Your task to perform on an android device: open a bookmark in the chrome app Image 0: 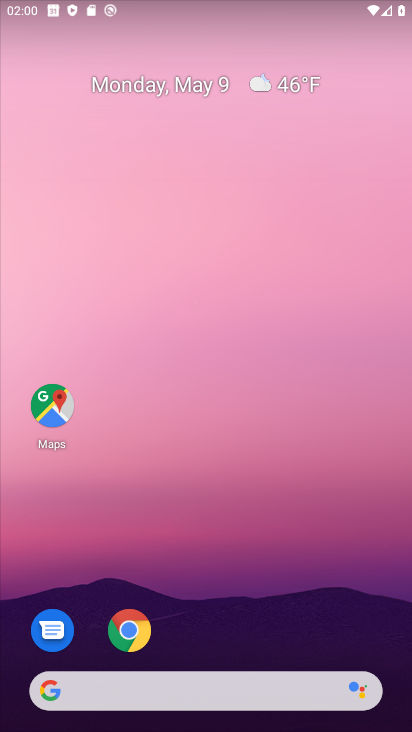
Step 0: click (125, 630)
Your task to perform on an android device: open a bookmark in the chrome app Image 1: 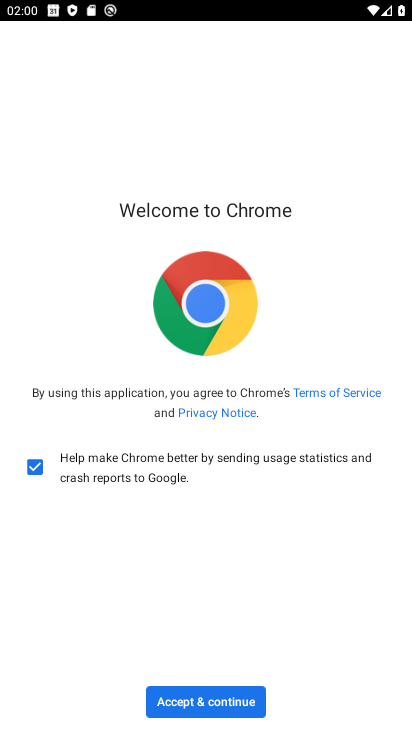
Step 1: click (200, 704)
Your task to perform on an android device: open a bookmark in the chrome app Image 2: 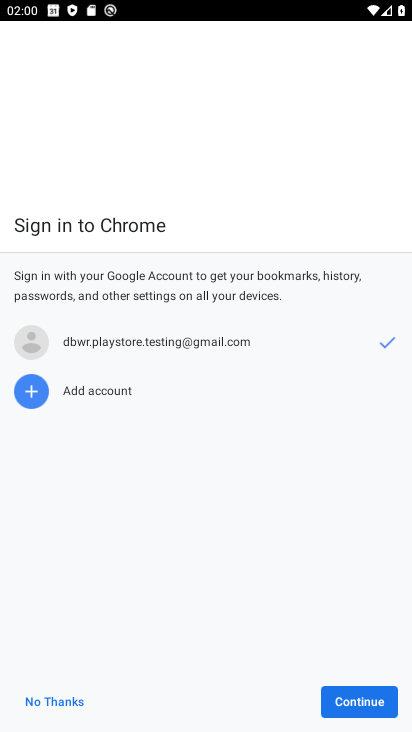
Step 2: click (356, 699)
Your task to perform on an android device: open a bookmark in the chrome app Image 3: 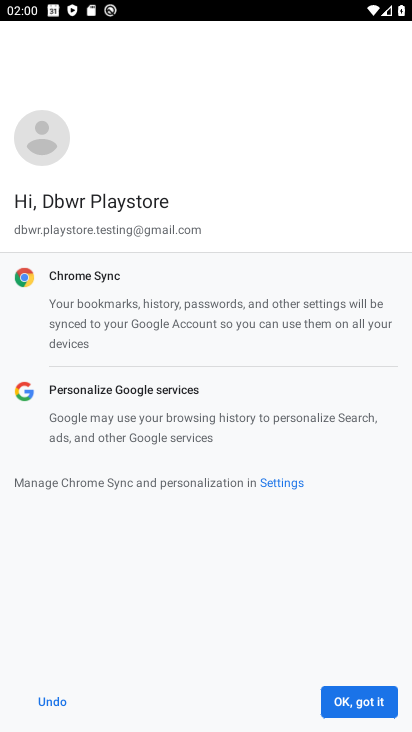
Step 3: click (356, 699)
Your task to perform on an android device: open a bookmark in the chrome app Image 4: 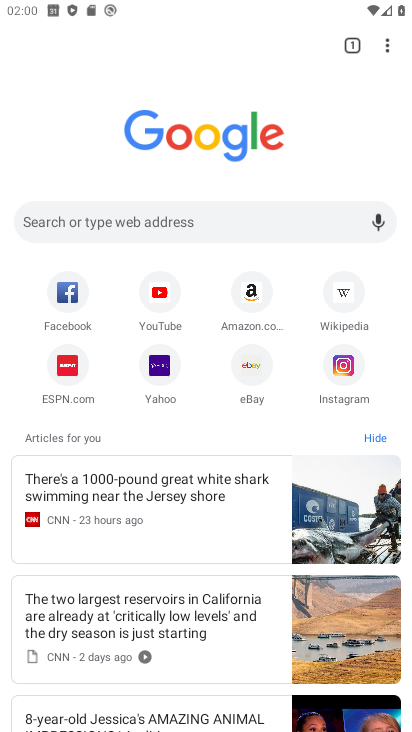
Step 4: click (387, 45)
Your task to perform on an android device: open a bookmark in the chrome app Image 5: 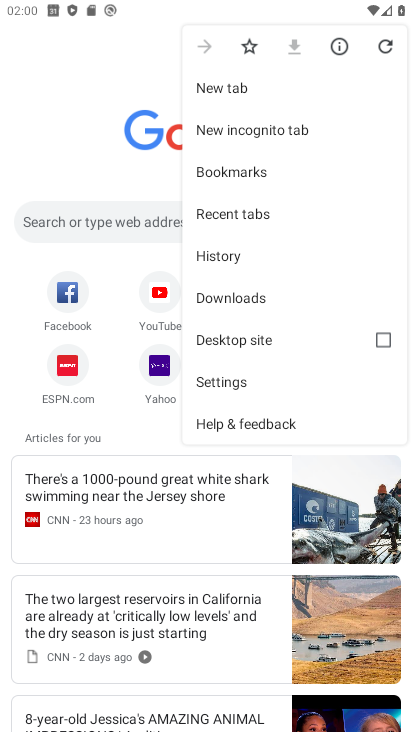
Step 5: click (255, 175)
Your task to perform on an android device: open a bookmark in the chrome app Image 6: 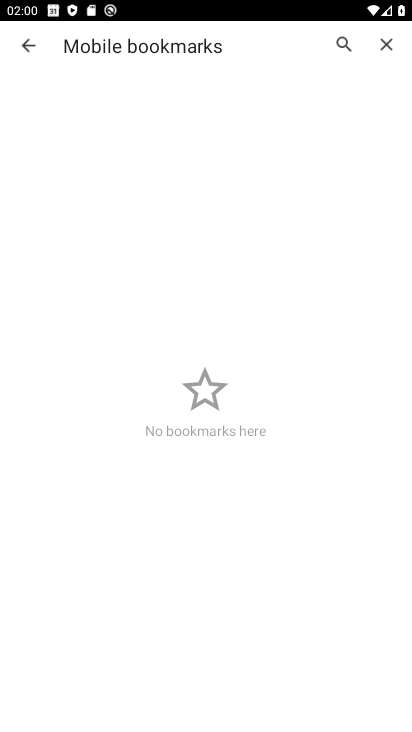
Step 6: task complete